Your task to perform on an android device: open app "Facebook Messenger" (install if not already installed) Image 0: 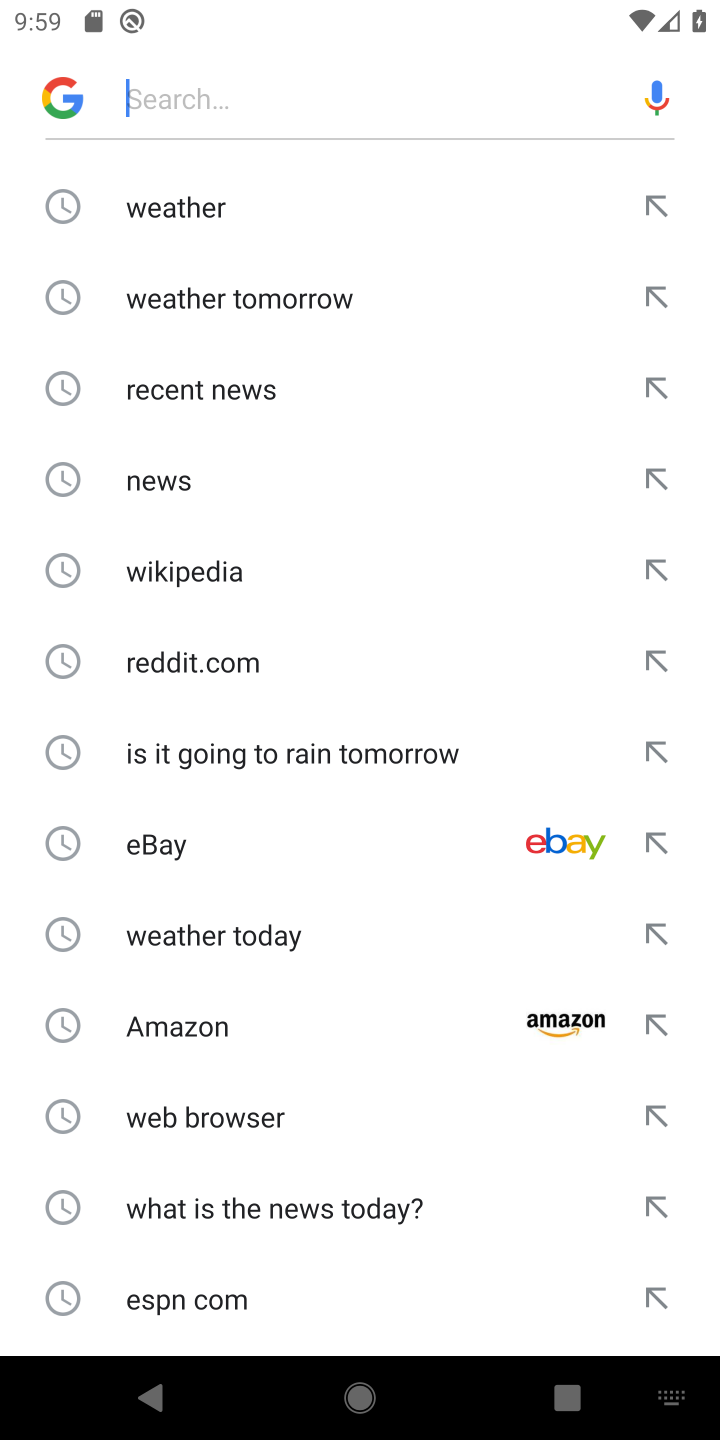
Step 0: press home button
Your task to perform on an android device: open app "Facebook Messenger" (install if not already installed) Image 1: 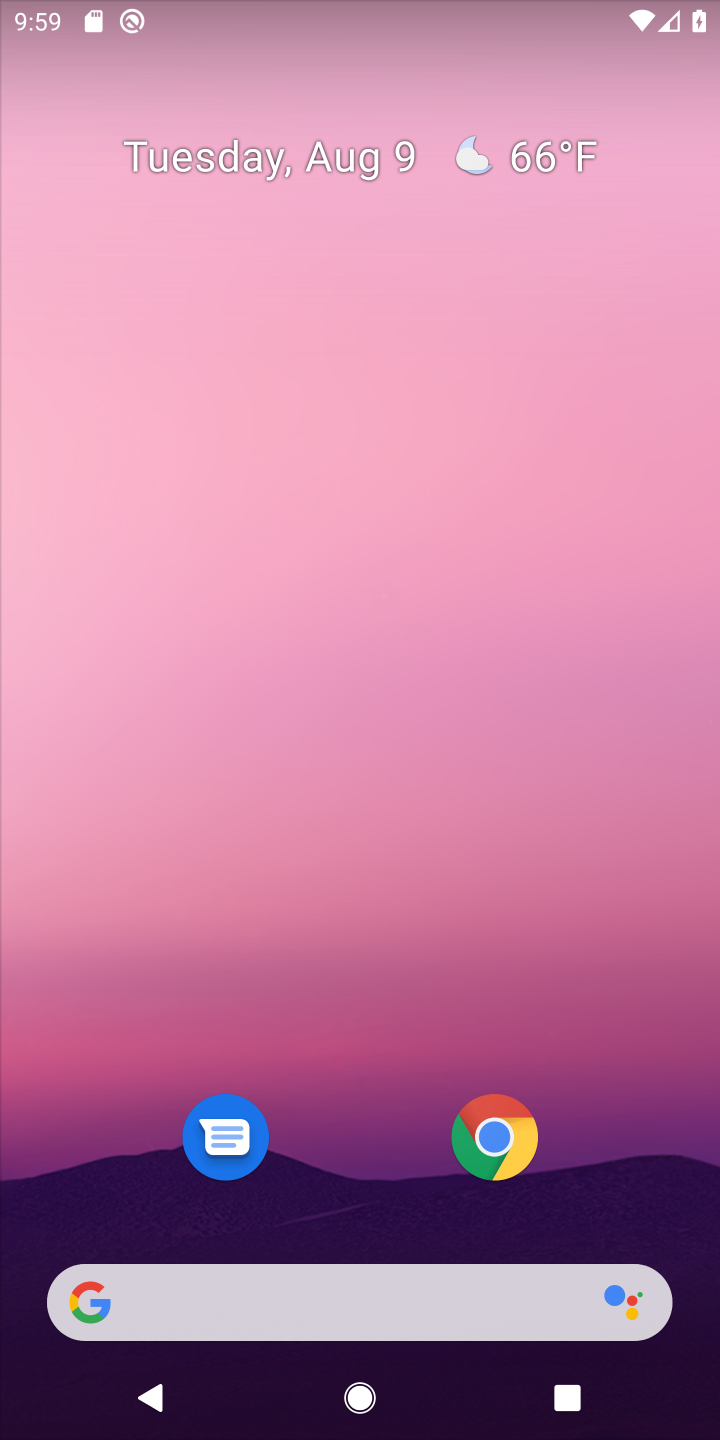
Step 1: drag from (333, 1147) to (331, 318)
Your task to perform on an android device: open app "Facebook Messenger" (install if not already installed) Image 2: 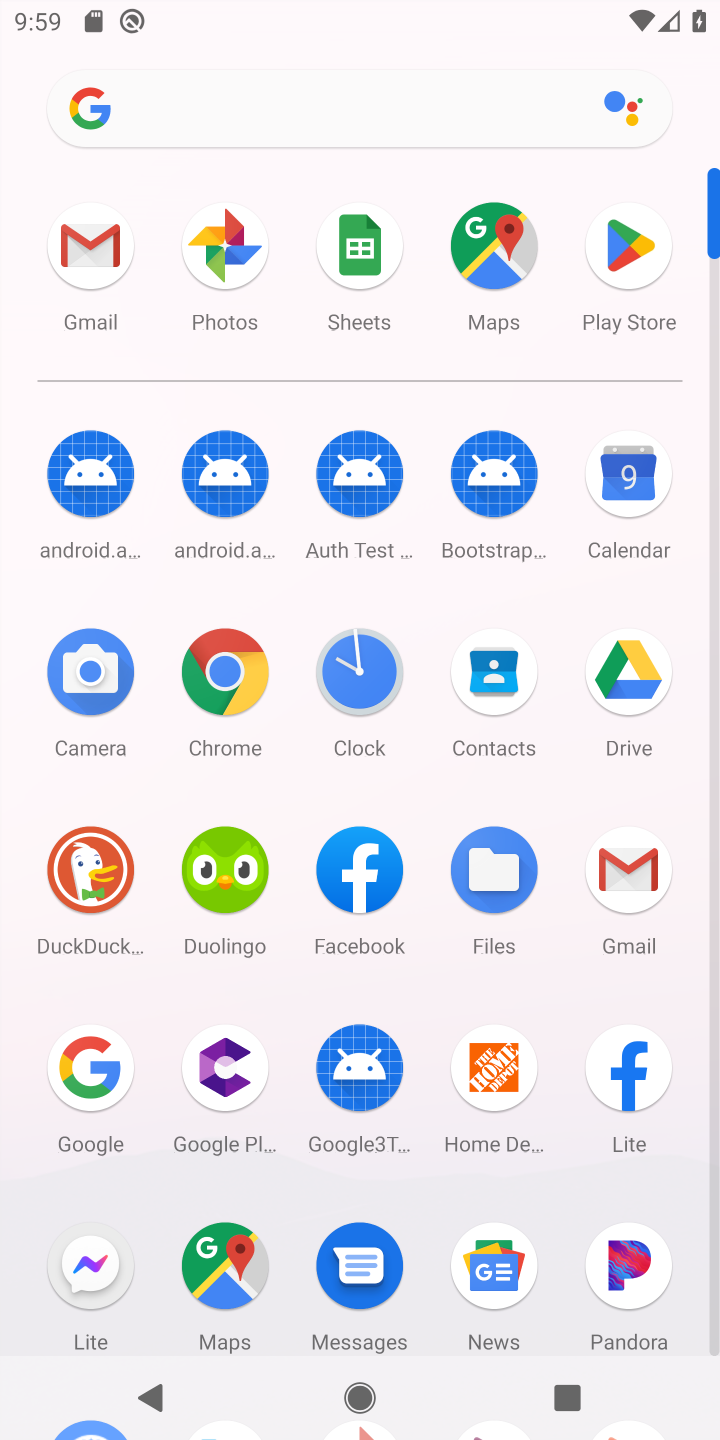
Step 2: click (639, 275)
Your task to perform on an android device: open app "Facebook Messenger" (install if not already installed) Image 3: 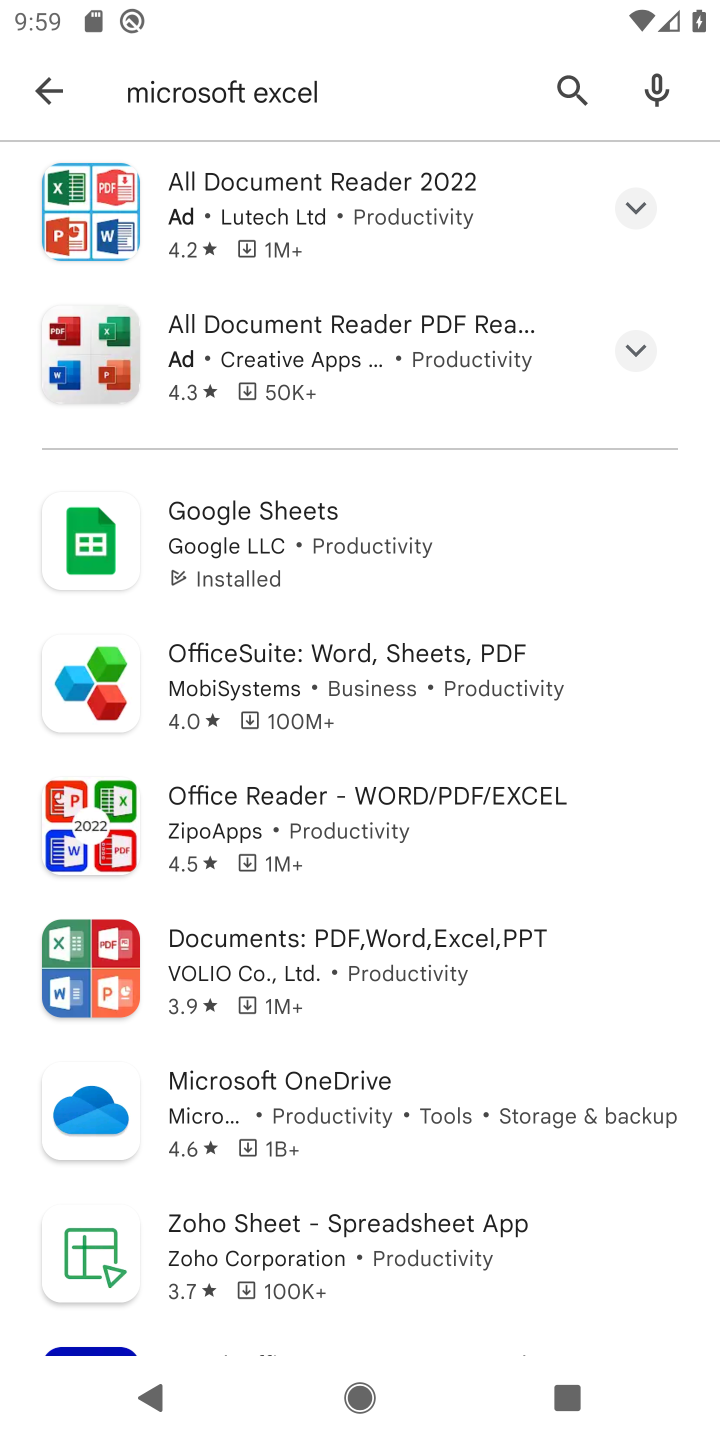
Step 3: click (550, 86)
Your task to perform on an android device: open app "Facebook Messenger" (install if not already installed) Image 4: 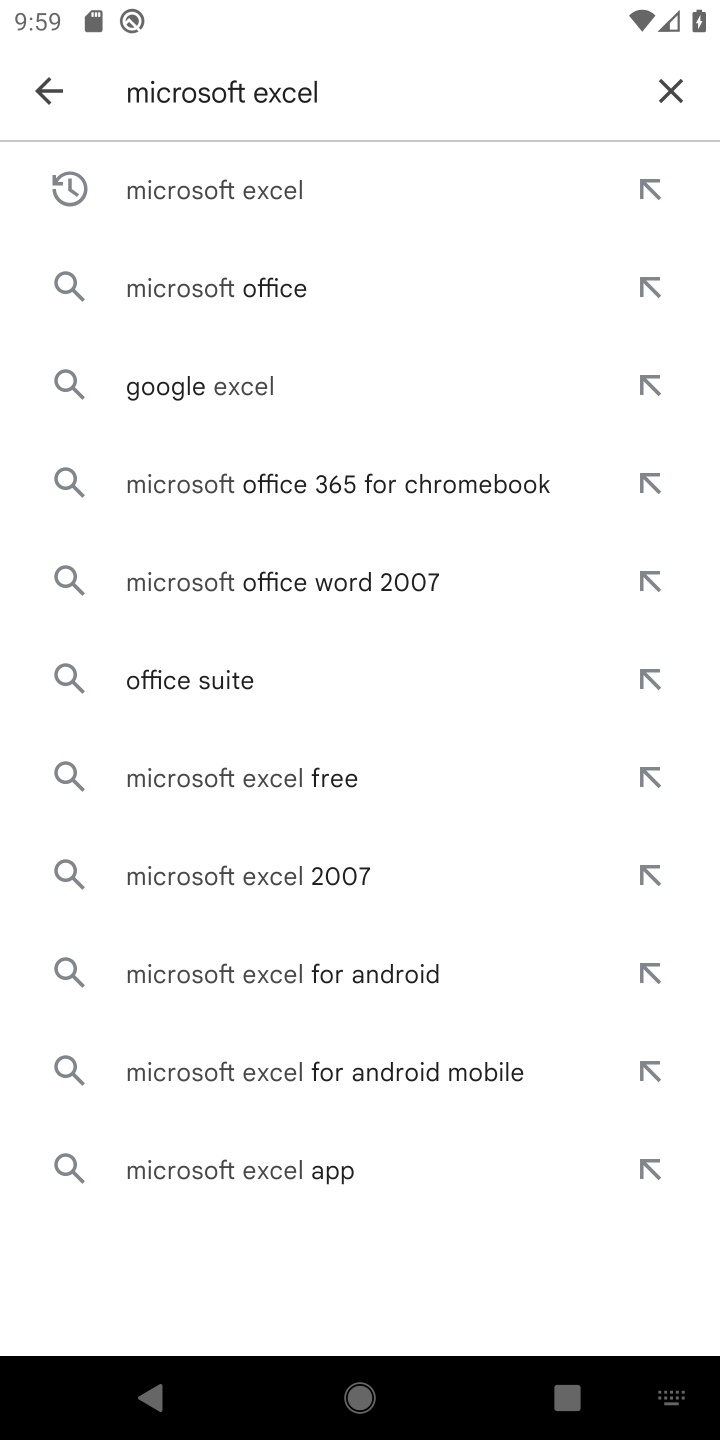
Step 4: click (353, 181)
Your task to perform on an android device: open app "Facebook Messenger" (install if not already installed) Image 5: 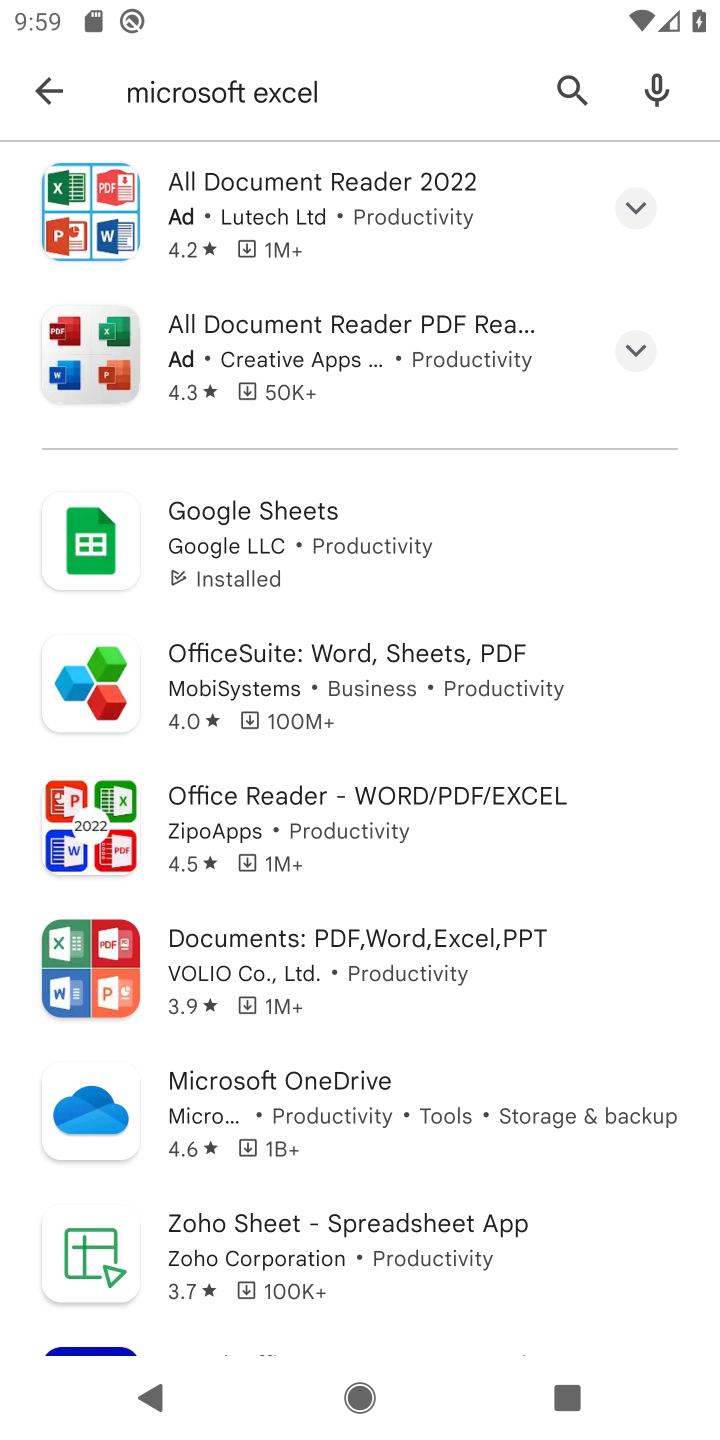
Step 5: click (555, 90)
Your task to perform on an android device: open app "Facebook Messenger" (install if not already installed) Image 6: 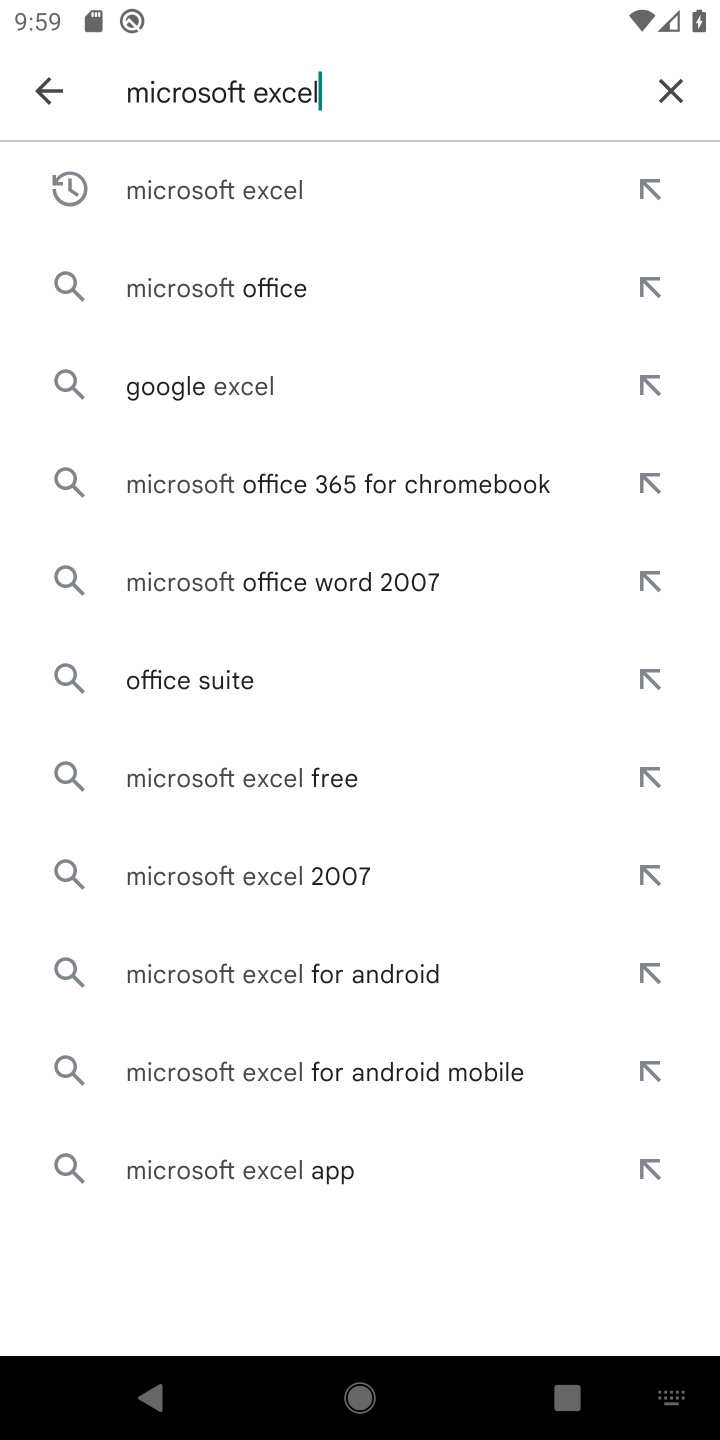
Step 6: click (680, 95)
Your task to perform on an android device: open app "Facebook Messenger" (install if not already installed) Image 7: 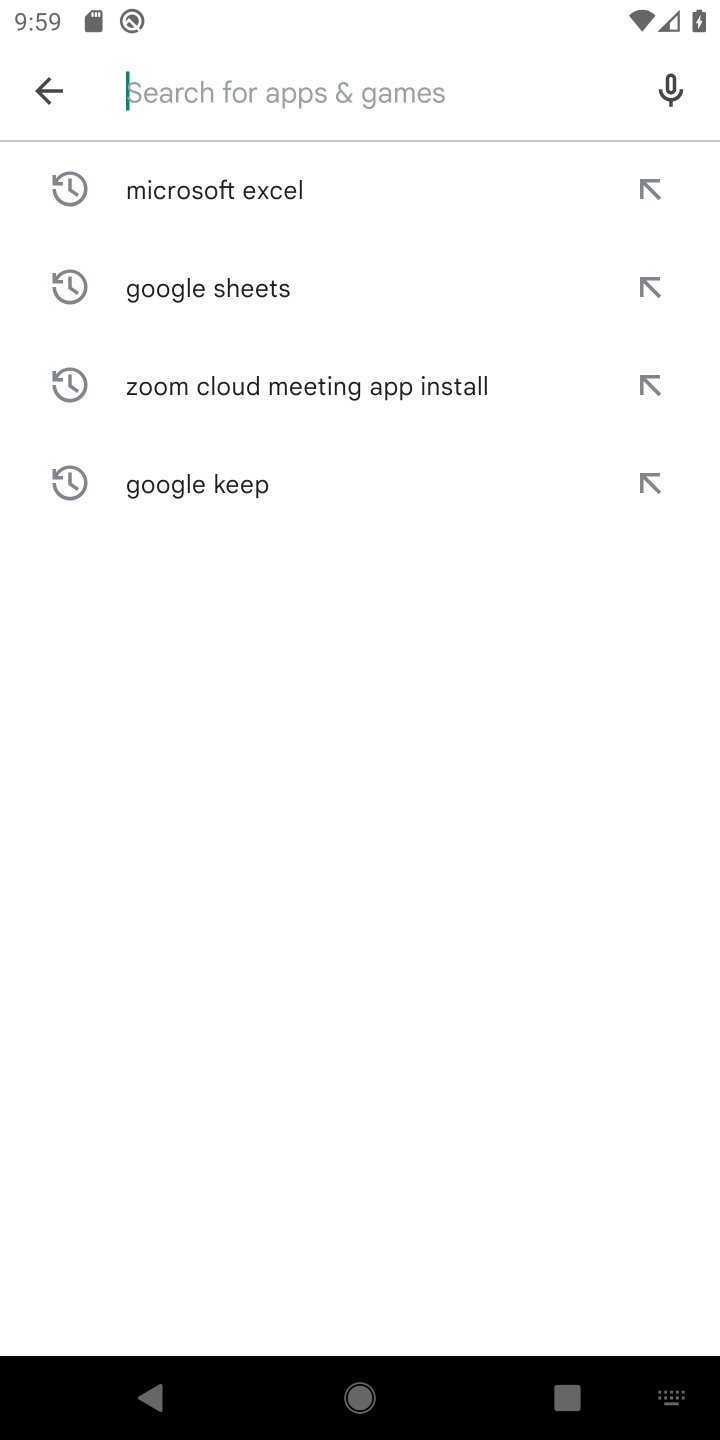
Step 7: type "Facebook Messenger"
Your task to perform on an android device: open app "Facebook Messenger" (install if not already installed) Image 8: 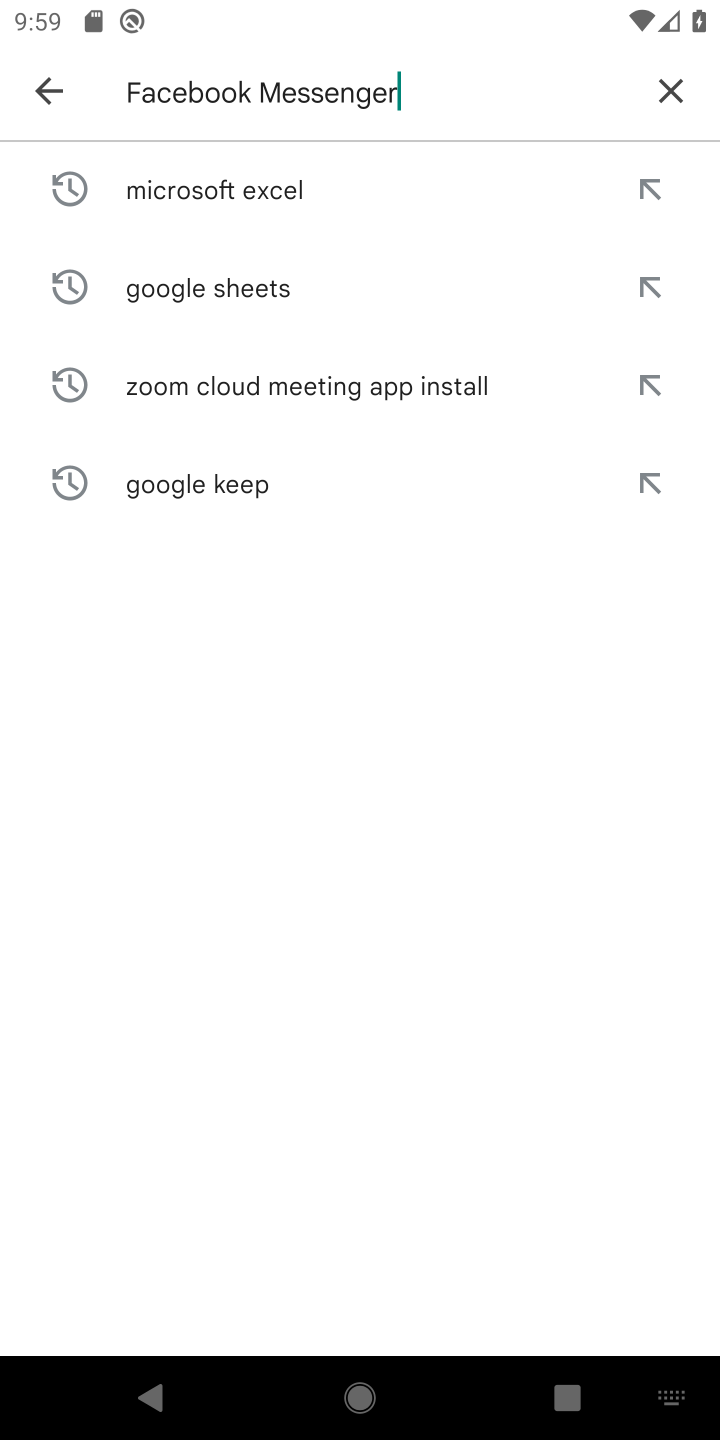
Step 8: type ""
Your task to perform on an android device: open app "Facebook Messenger" (install if not already installed) Image 9: 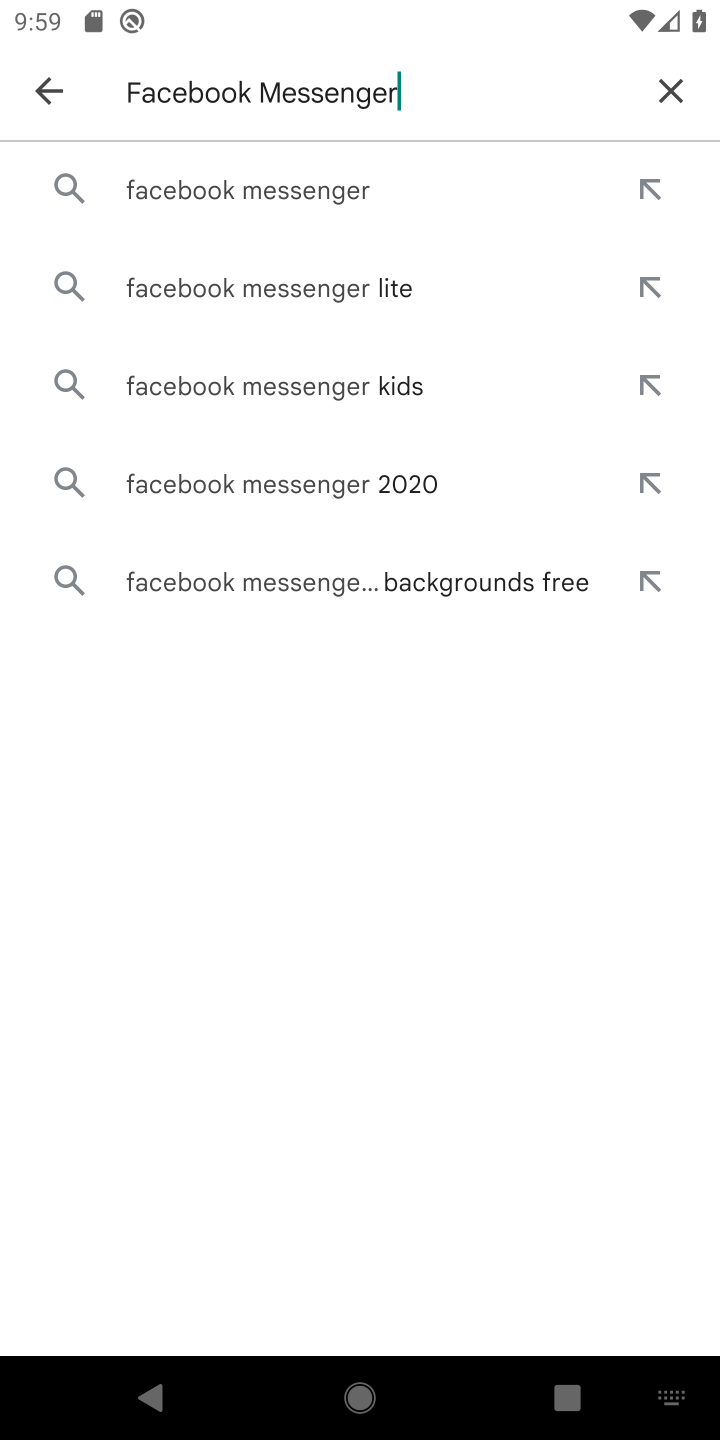
Step 9: click (326, 172)
Your task to perform on an android device: open app "Facebook Messenger" (install if not already installed) Image 10: 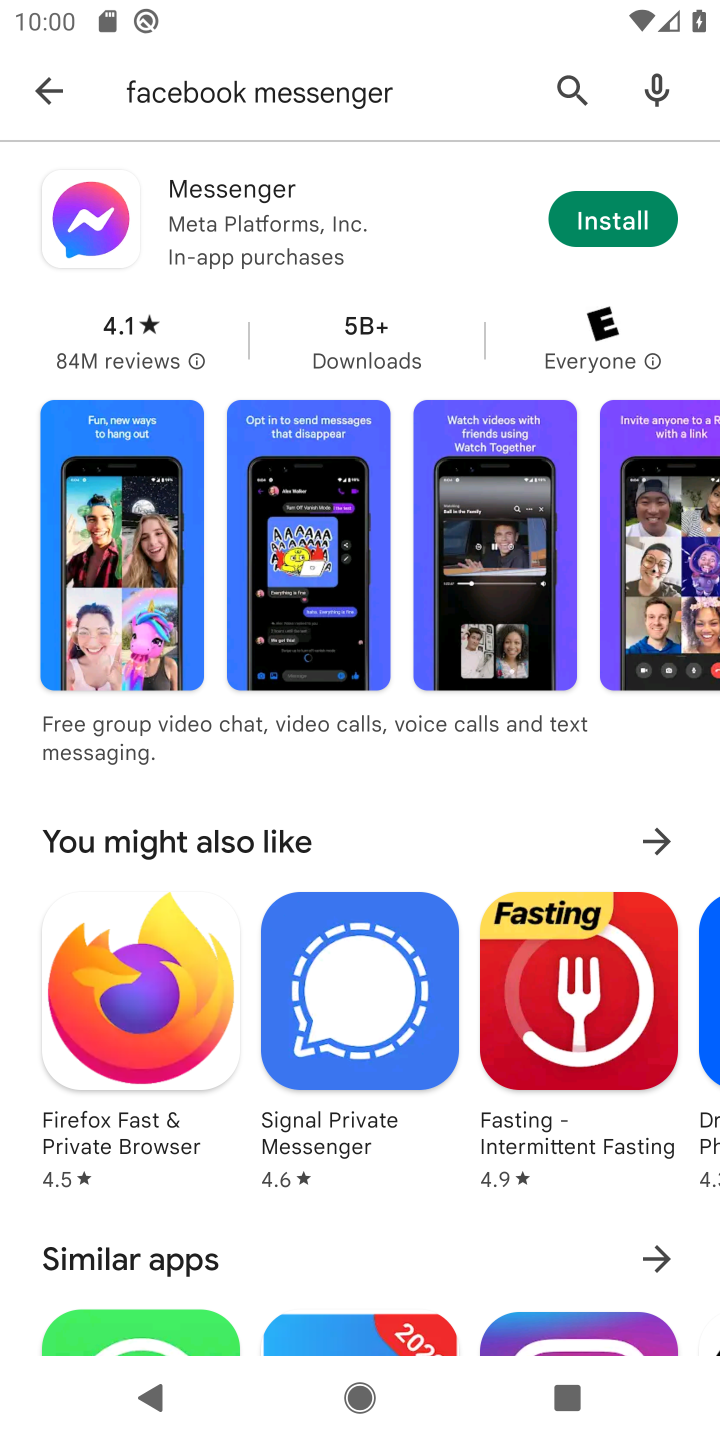
Step 10: click (612, 202)
Your task to perform on an android device: open app "Facebook Messenger" (install if not already installed) Image 11: 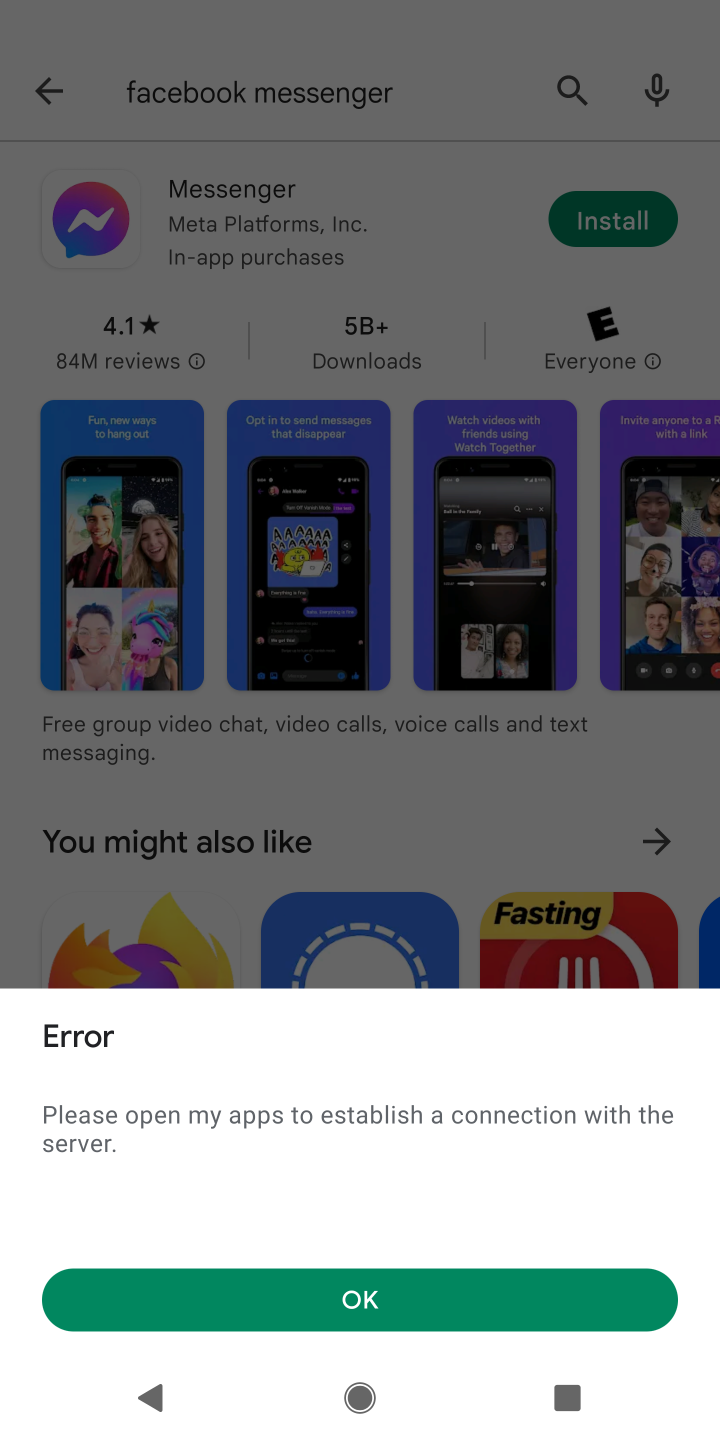
Step 11: task complete